Your task to perform on an android device: set an alarm Image 0: 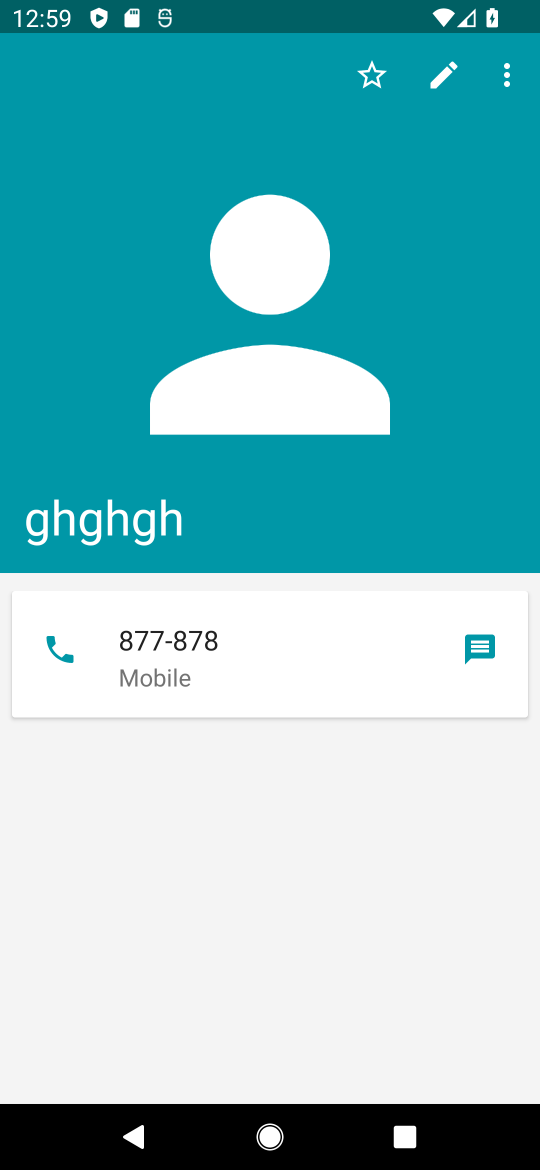
Step 0: press back button
Your task to perform on an android device: set an alarm Image 1: 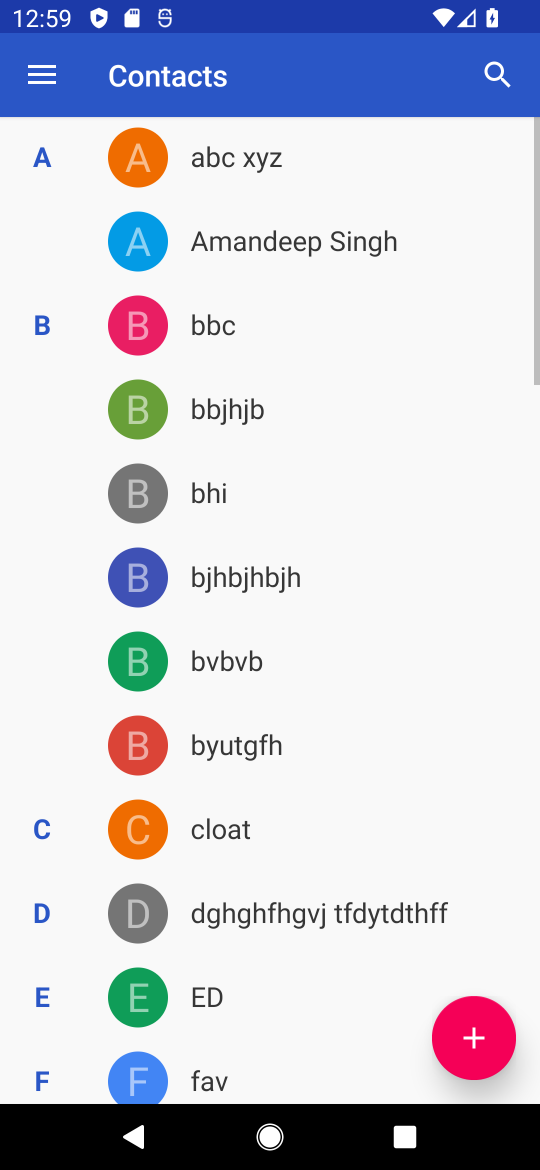
Step 1: press back button
Your task to perform on an android device: set an alarm Image 2: 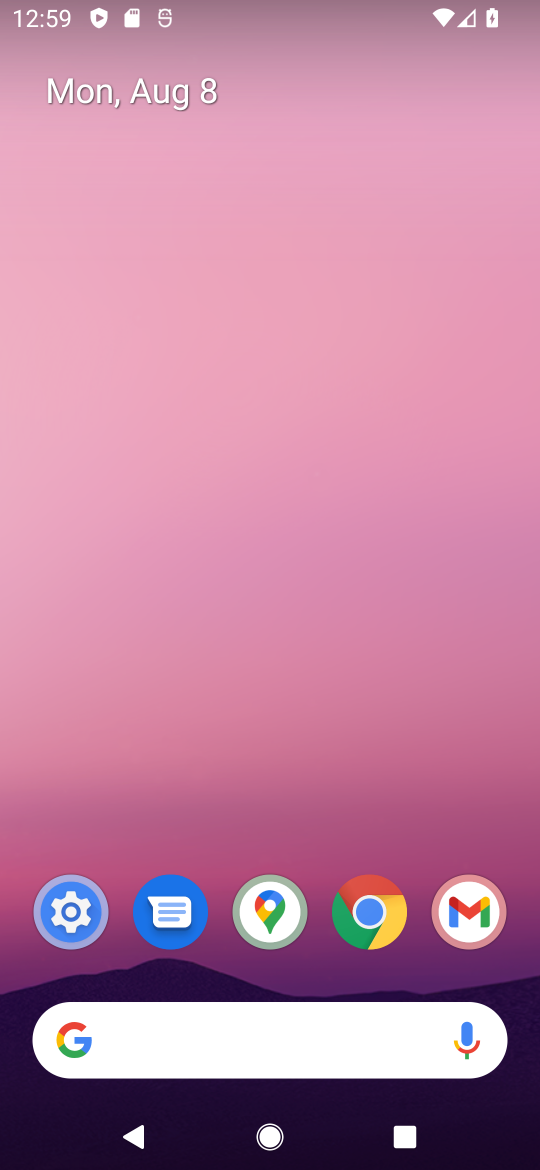
Step 2: drag from (206, 750) to (303, 0)
Your task to perform on an android device: set an alarm Image 3: 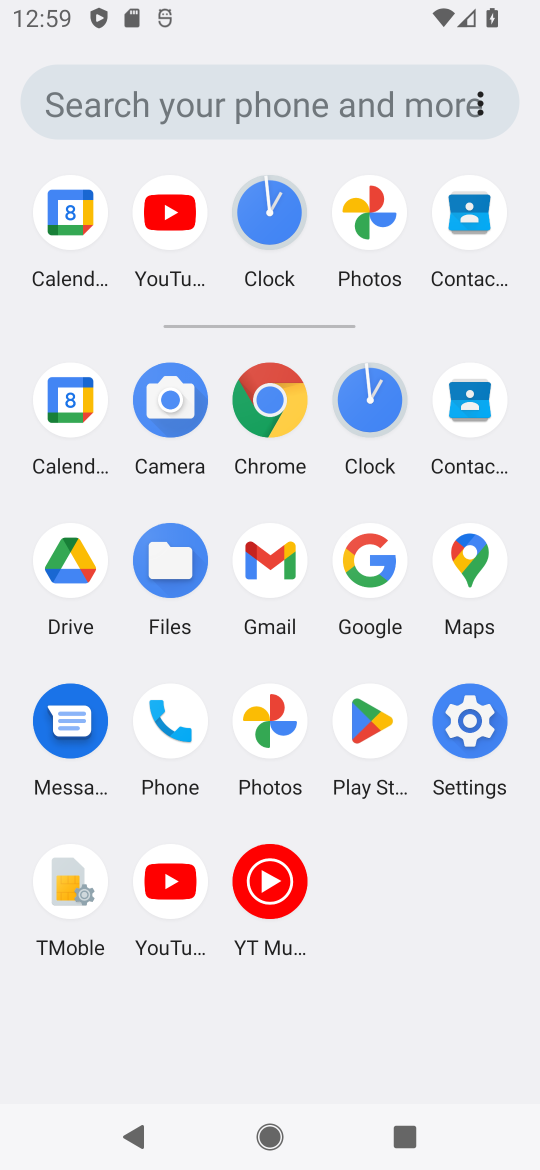
Step 3: click (389, 400)
Your task to perform on an android device: set an alarm Image 4: 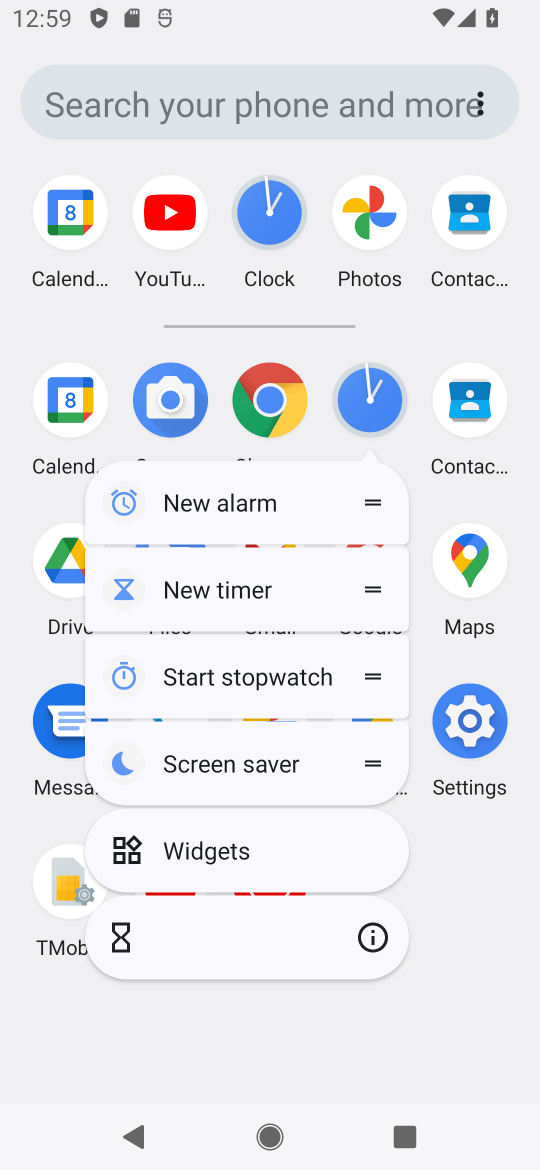
Step 4: click (359, 384)
Your task to perform on an android device: set an alarm Image 5: 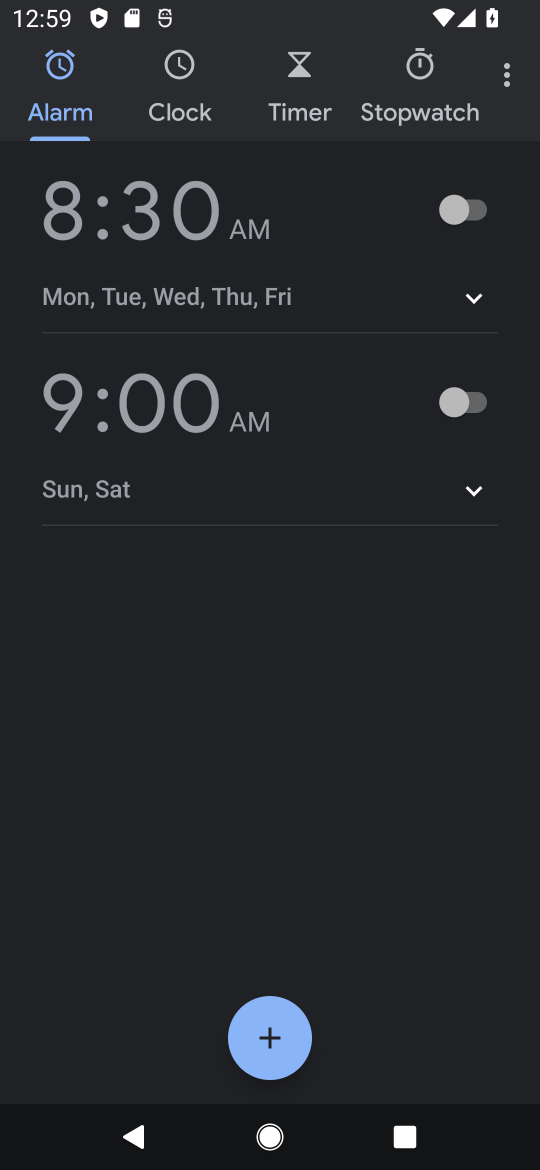
Step 5: click (450, 201)
Your task to perform on an android device: set an alarm Image 6: 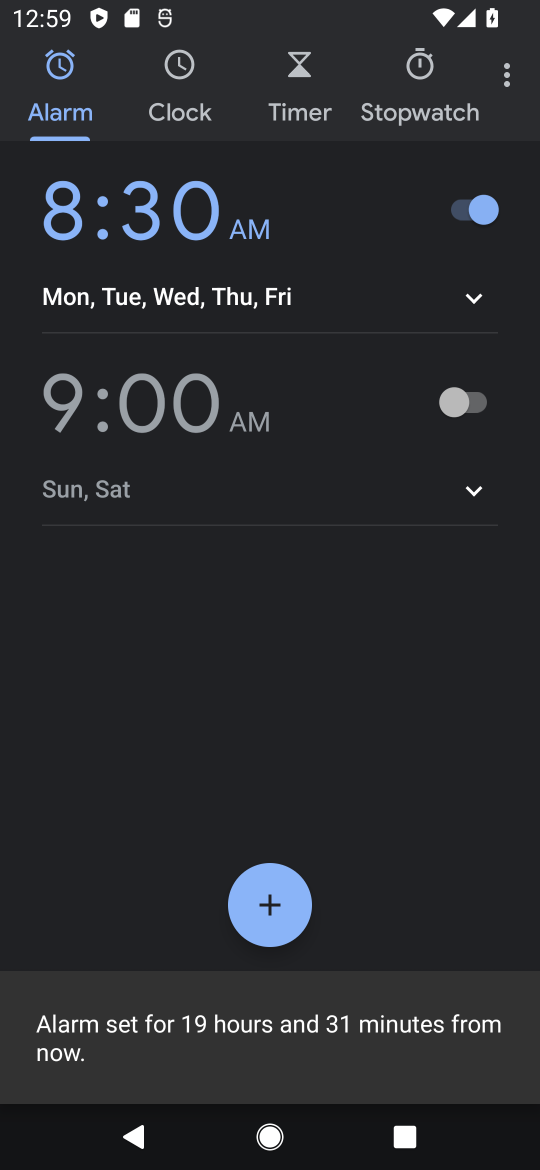
Step 6: task complete